Your task to perform on an android device: Open ESPN.com Image 0: 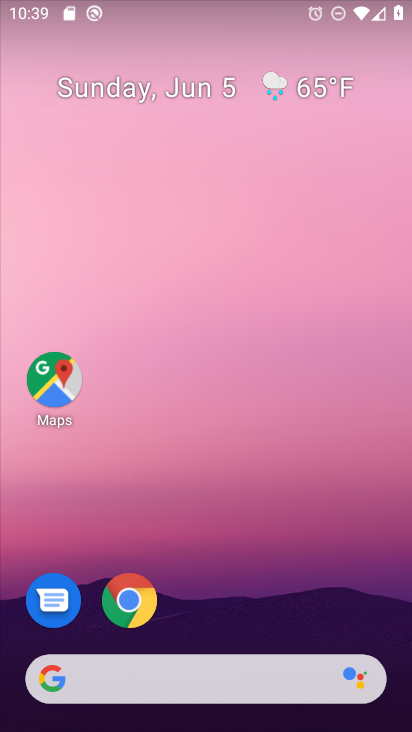
Step 0: drag from (381, 613) to (286, 52)
Your task to perform on an android device: Open ESPN.com Image 1: 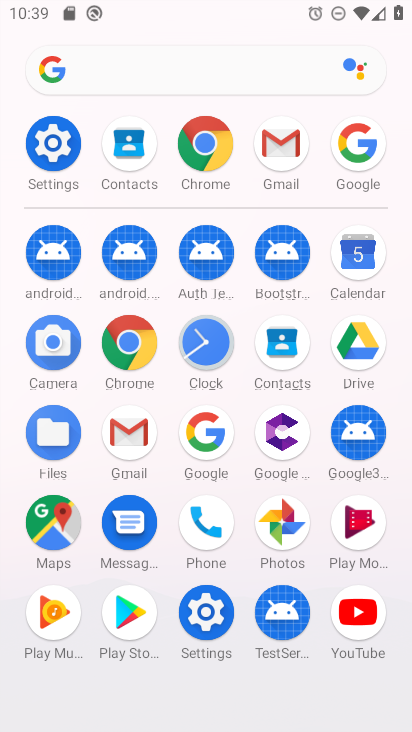
Step 1: click (205, 429)
Your task to perform on an android device: Open ESPN.com Image 2: 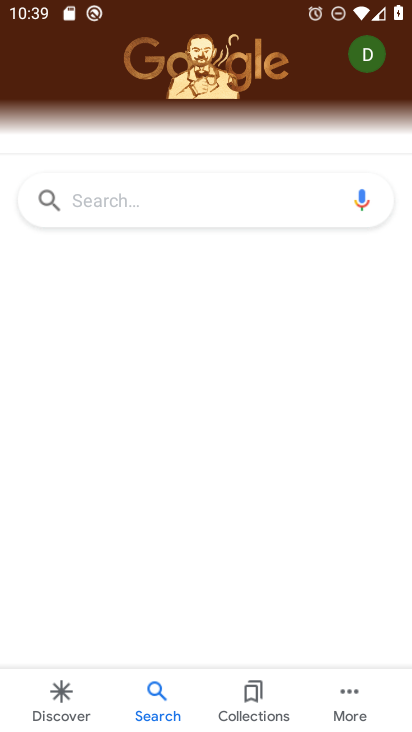
Step 2: click (117, 194)
Your task to perform on an android device: Open ESPN.com Image 3: 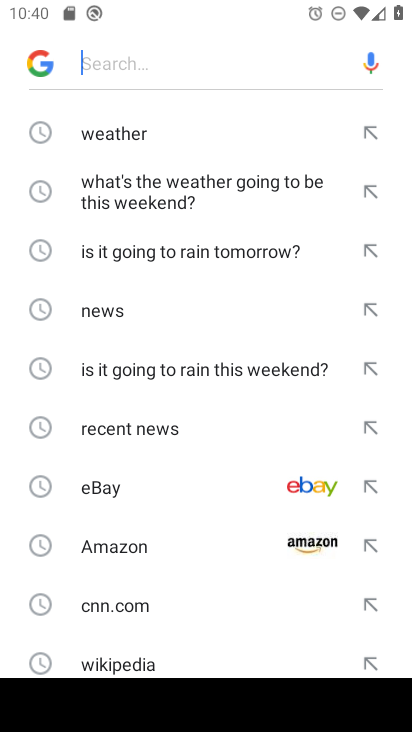
Step 3: drag from (108, 574) to (138, 198)
Your task to perform on an android device: Open ESPN.com Image 4: 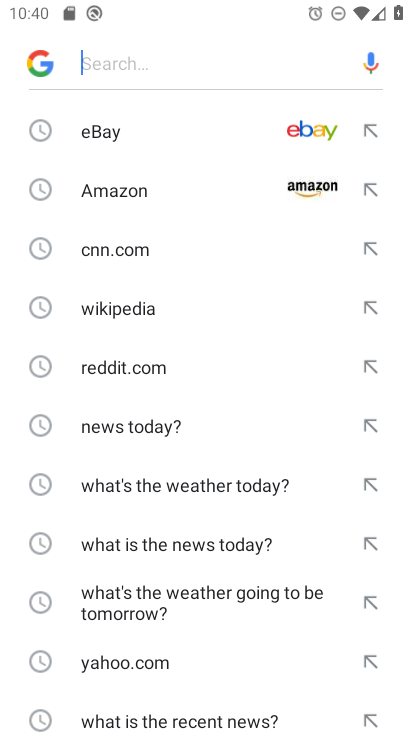
Step 4: drag from (158, 673) to (177, 210)
Your task to perform on an android device: Open ESPN.com Image 5: 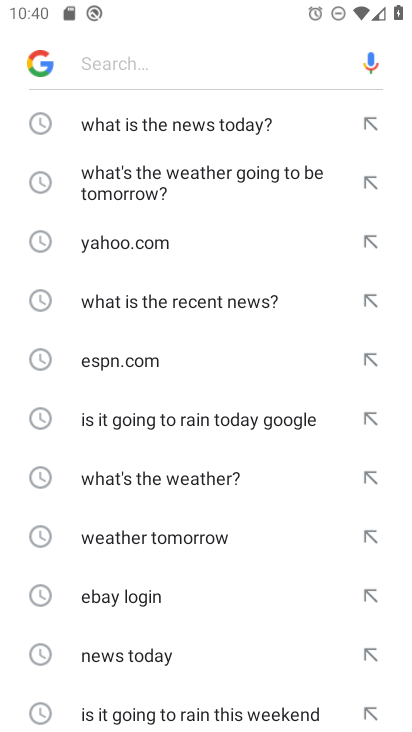
Step 5: drag from (165, 653) to (229, 235)
Your task to perform on an android device: Open ESPN.com Image 6: 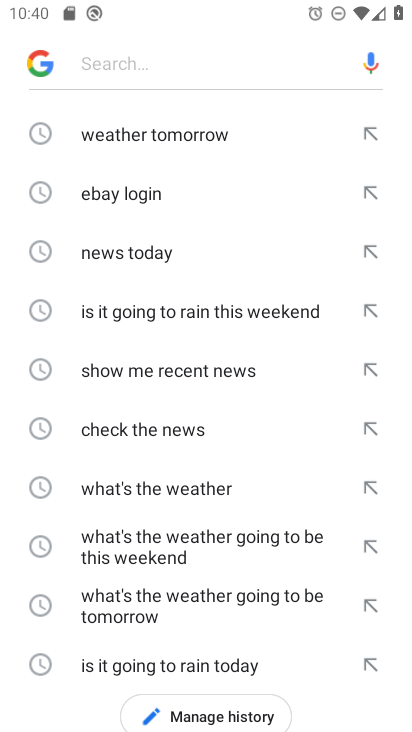
Step 6: drag from (188, 112) to (127, 721)
Your task to perform on an android device: Open ESPN.com Image 7: 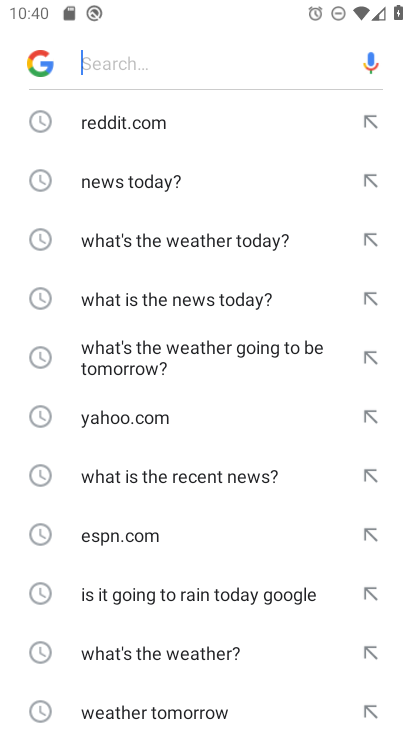
Step 7: drag from (158, 186) to (166, 711)
Your task to perform on an android device: Open ESPN.com Image 8: 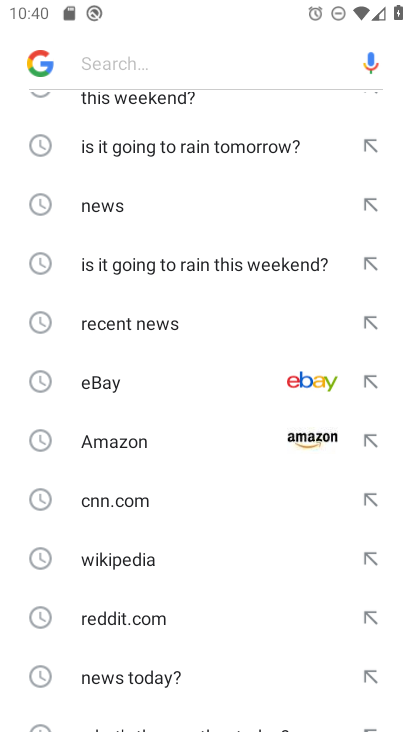
Step 8: drag from (122, 188) to (107, 627)
Your task to perform on an android device: Open ESPN.com Image 9: 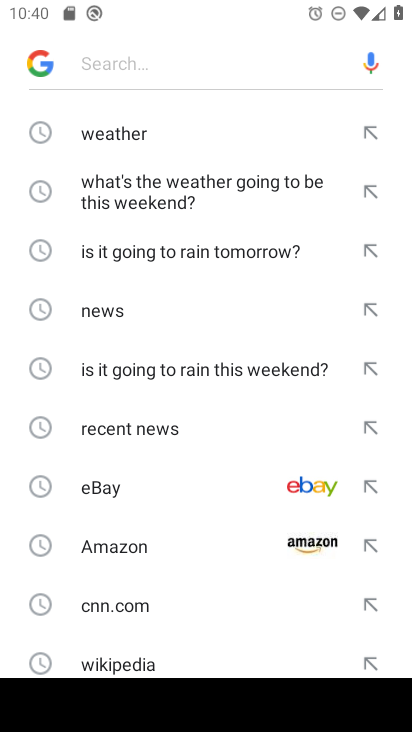
Step 9: type "espn.com"
Your task to perform on an android device: Open ESPN.com Image 10: 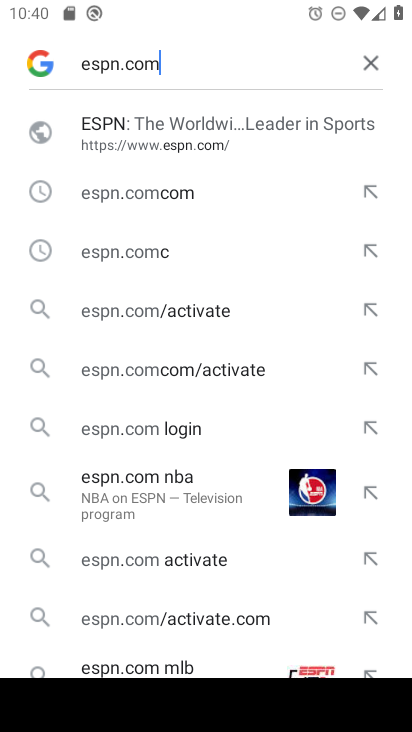
Step 10: click (123, 128)
Your task to perform on an android device: Open ESPN.com Image 11: 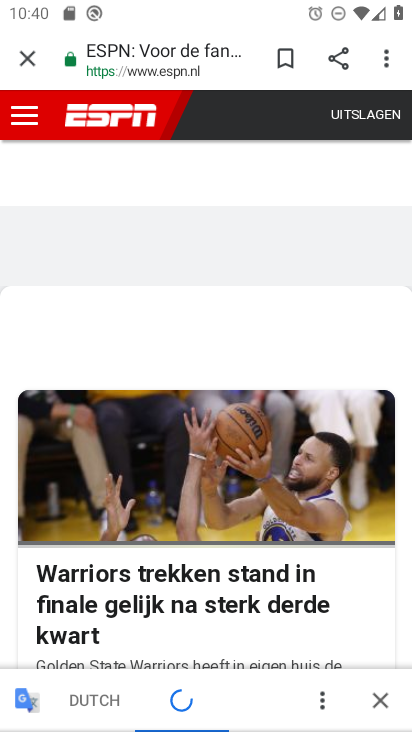
Step 11: task complete